Your task to perform on an android device: Open calendar and show me the first week of next month Image 0: 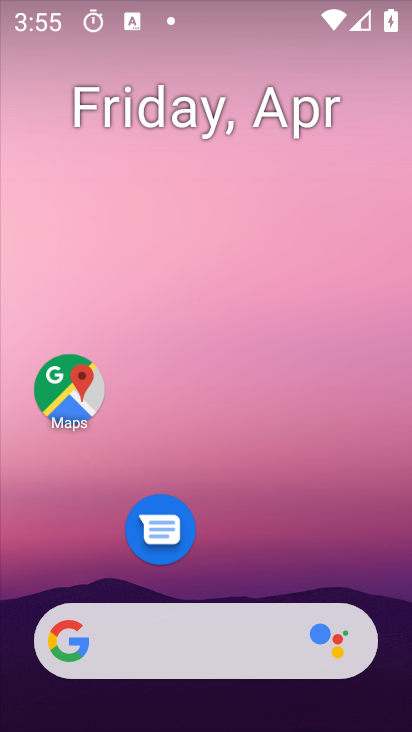
Step 0: drag from (234, 463) to (265, 78)
Your task to perform on an android device: Open calendar and show me the first week of next month Image 1: 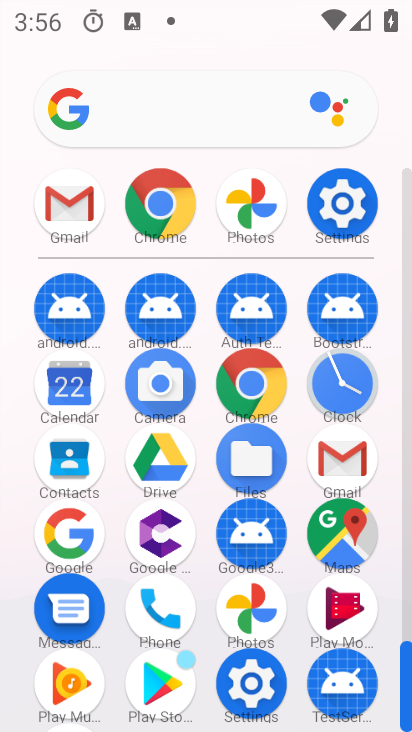
Step 1: click (85, 401)
Your task to perform on an android device: Open calendar and show me the first week of next month Image 2: 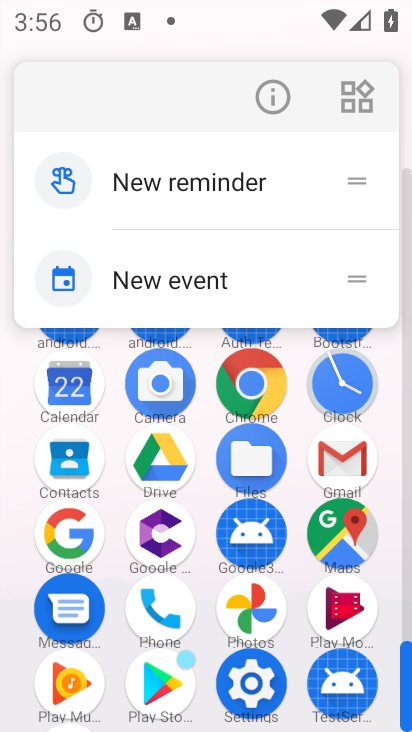
Step 2: click (57, 401)
Your task to perform on an android device: Open calendar and show me the first week of next month Image 3: 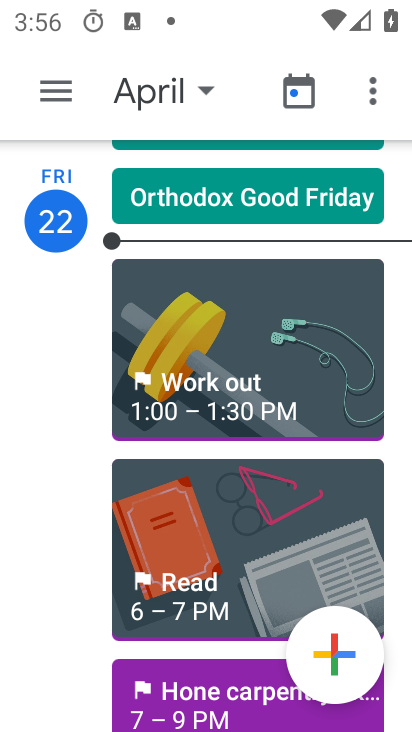
Step 3: click (205, 99)
Your task to perform on an android device: Open calendar and show me the first week of next month Image 4: 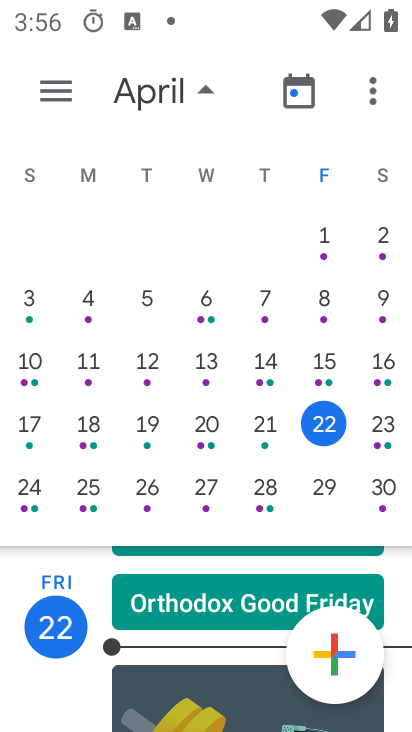
Step 4: task complete